Your task to perform on an android device: Go to calendar. Show me events next week Image 0: 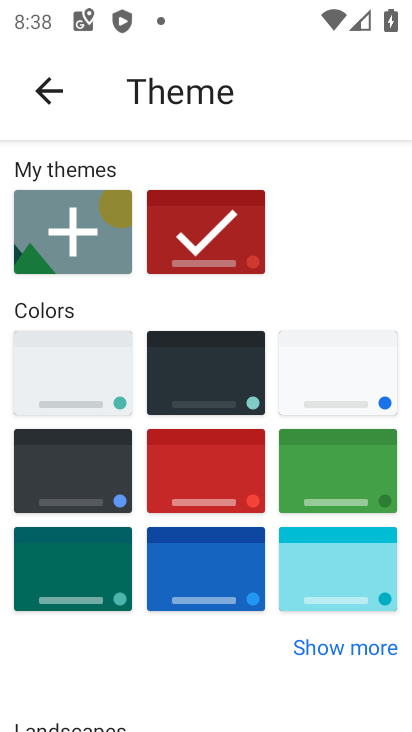
Step 0: press home button
Your task to perform on an android device: Go to calendar. Show me events next week Image 1: 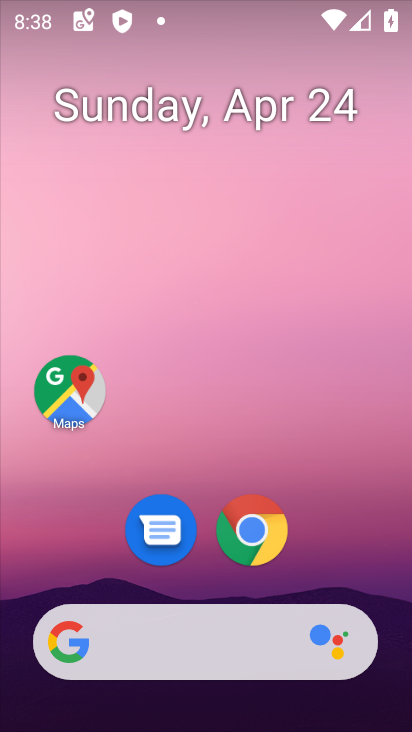
Step 1: click (125, 113)
Your task to perform on an android device: Go to calendar. Show me events next week Image 2: 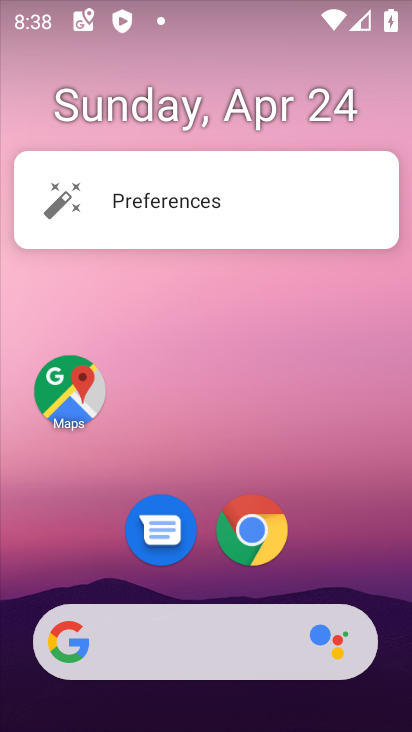
Step 2: click (143, 114)
Your task to perform on an android device: Go to calendar. Show me events next week Image 3: 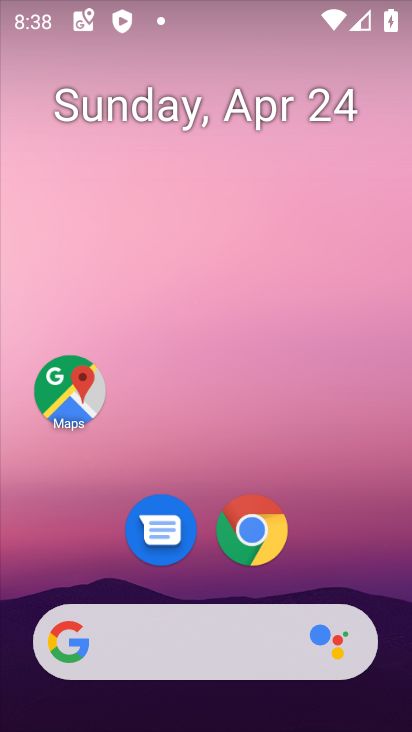
Step 3: click (143, 114)
Your task to perform on an android device: Go to calendar. Show me events next week Image 4: 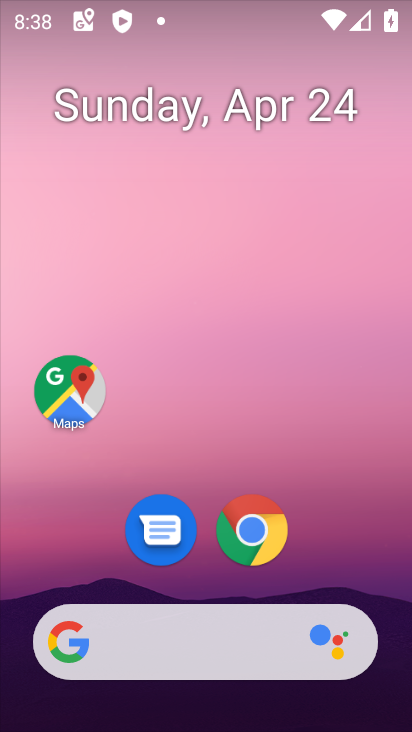
Step 4: click (143, 114)
Your task to perform on an android device: Go to calendar. Show me events next week Image 5: 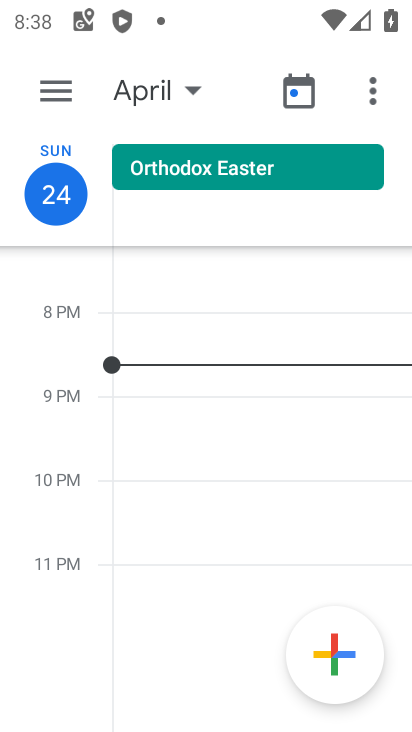
Step 5: click (143, 114)
Your task to perform on an android device: Go to calendar. Show me events next week Image 6: 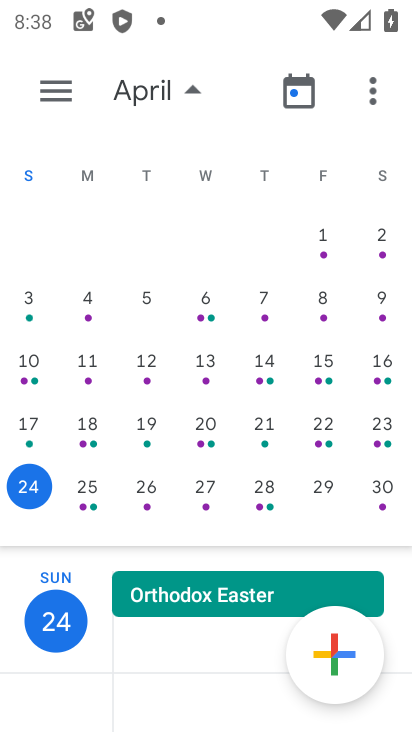
Step 6: drag from (384, 365) to (4, 262)
Your task to perform on an android device: Go to calendar. Show me events next week Image 7: 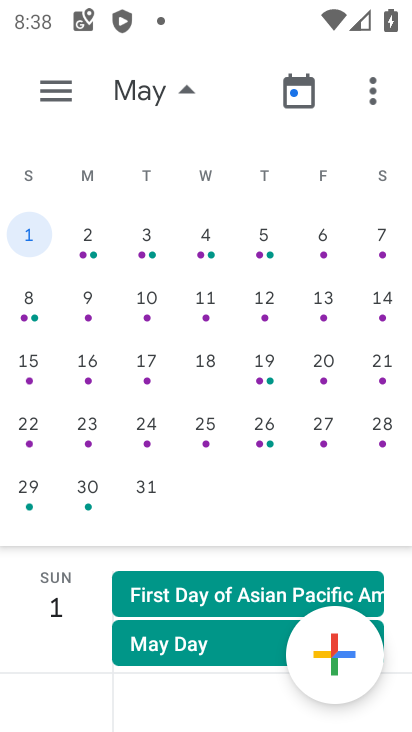
Step 7: click (145, 243)
Your task to perform on an android device: Go to calendar. Show me events next week Image 8: 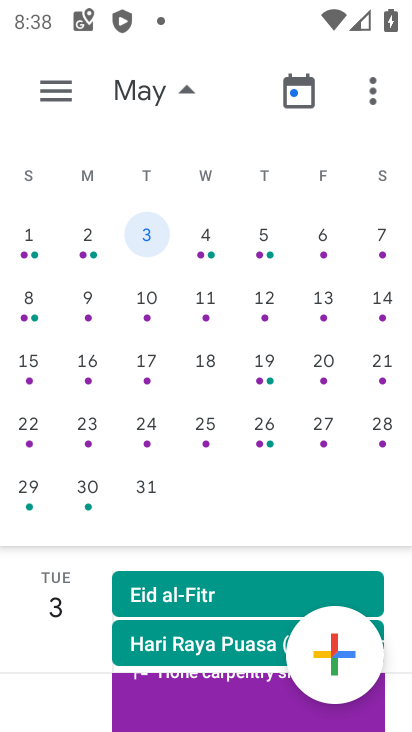
Step 8: click (176, 696)
Your task to perform on an android device: Go to calendar. Show me events next week Image 9: 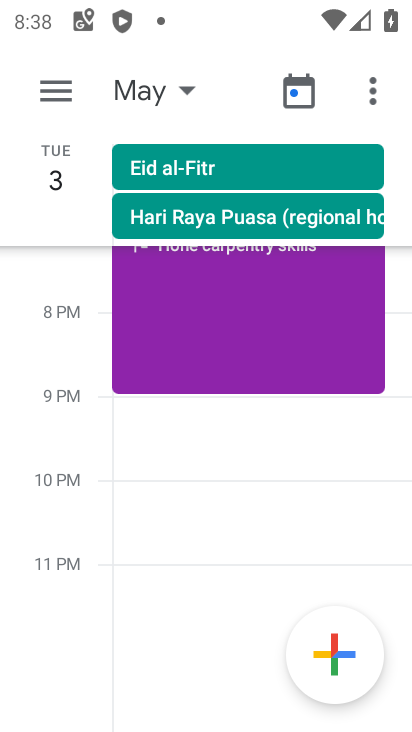
Step 9: click (223, 293)
Your task to perform on an android device: Go to calendar. Show me events next week Image 10: 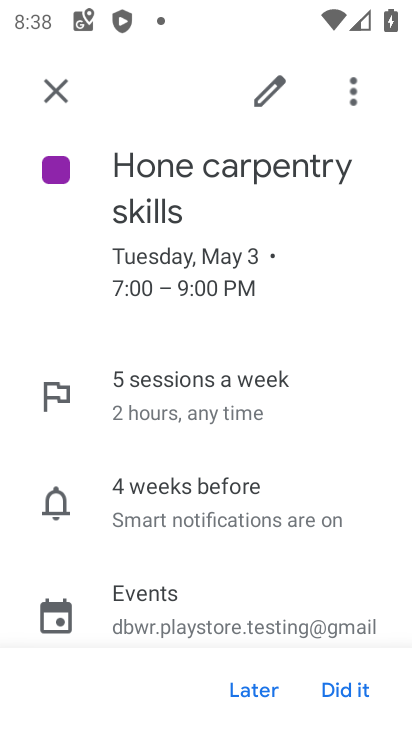
Step 10: task complete